Your task to perform on an android device: open chrome privacy settings Image 0: 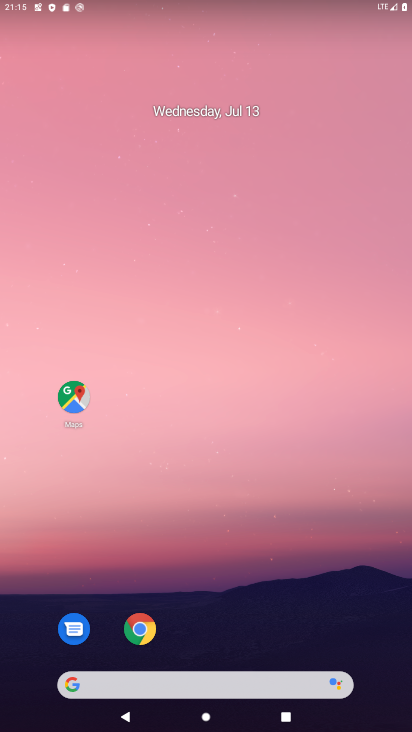
Step 0: drag from (252, 645) to (271, 252)
Your task to perform on an android device: open chrome privacy settings Image 1: 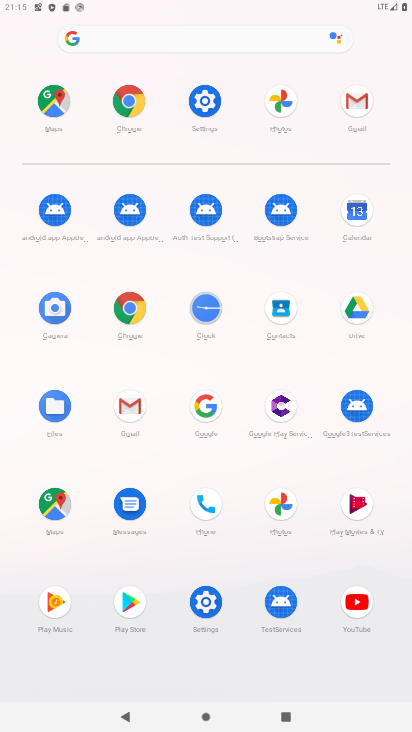
Step 1: click (128, 305)
Your task to perform on an android device: open chrome privacy settings Image 2: 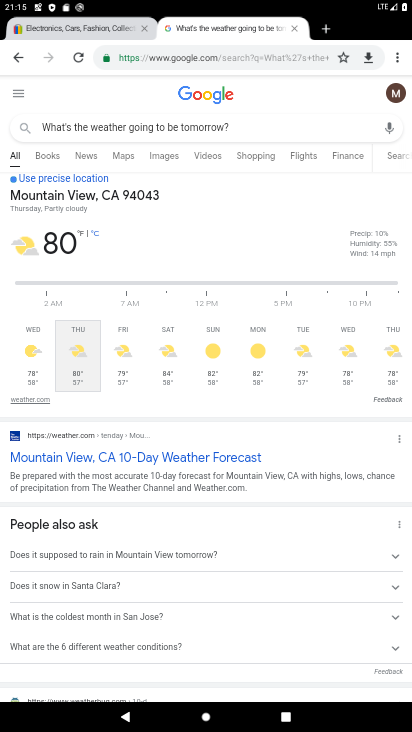
Step 2: drag from (397, 53) to (286, 341)
Your task to perform on an android device: open chrome privacy settings Image 3: 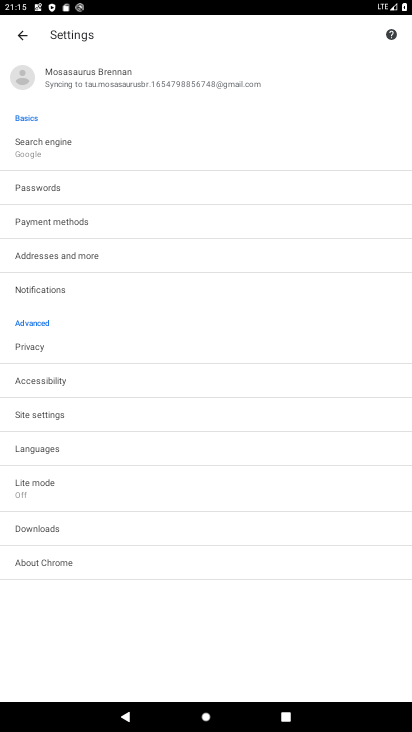
Step 3: click (41, 346)
Your task to perform on an android device: open chrome privacy settings Image 4: 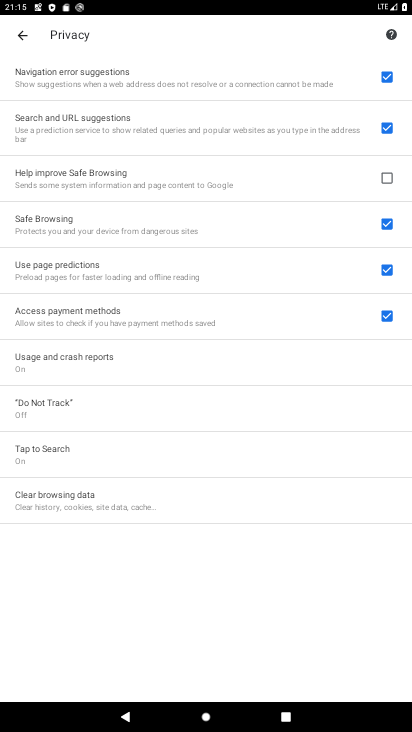
Step 4: task complete